Your task to perform on an android device: How do I get to the nearest AT&T Store? Image 0: 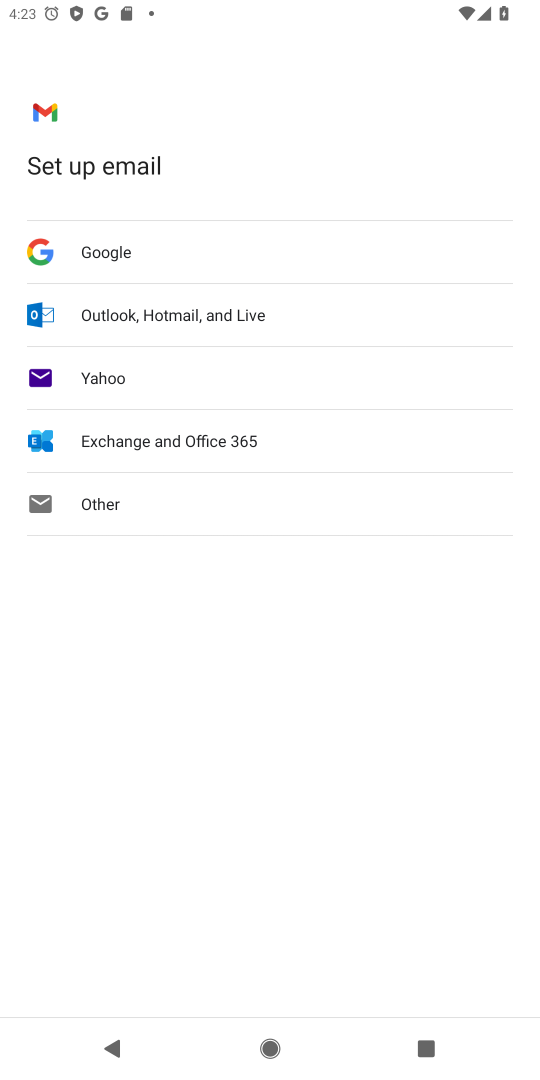
Step 0: press home button
Your task to perform on an android device: How do I get to the nearest AT&T Store? Image 1: 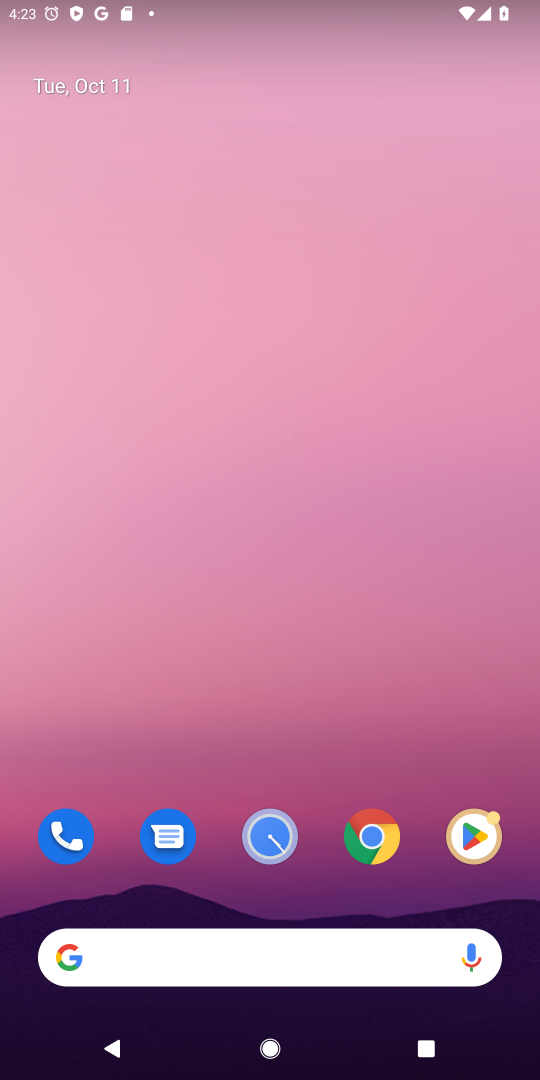
Step 1: click (229, 972)
Your task to perform on an android device: How do I get to the nearest AT&T Store? Image 2: 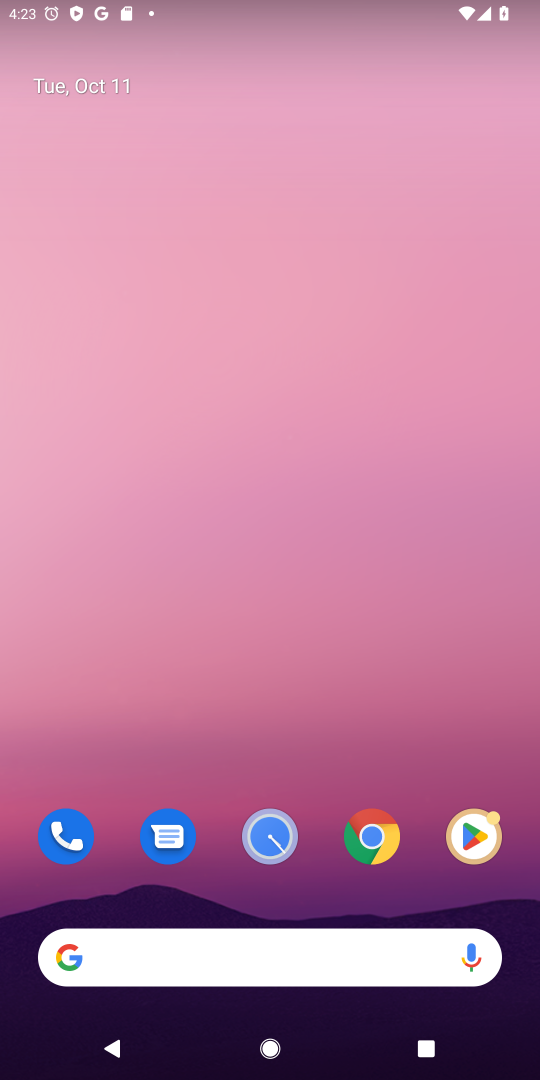
Step 2: type "How do I get to the nearest AT&T Store"
Your task to perform on an android device: How do I get to the nearest AT&T Store? Image 3: 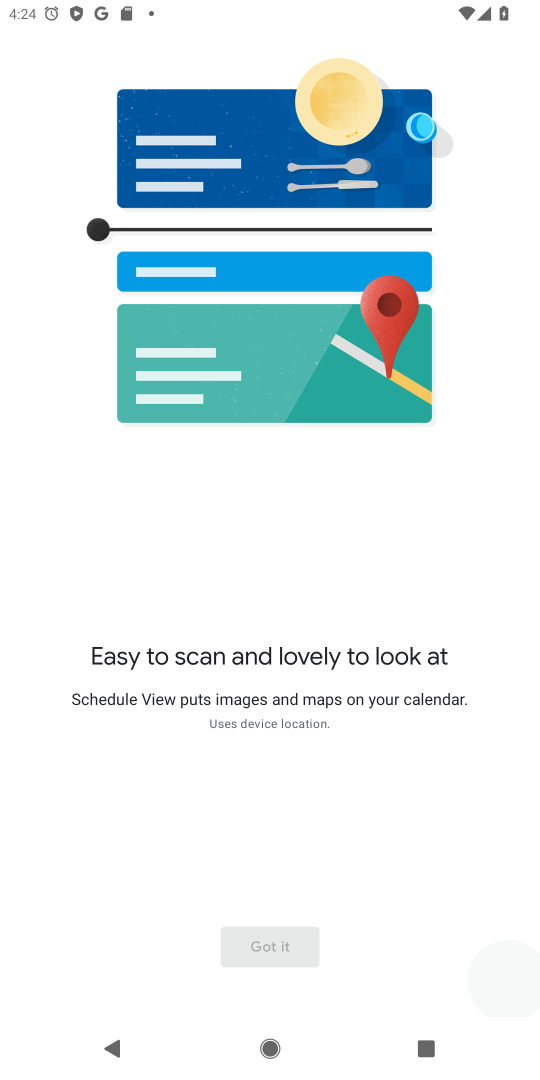
Step 3: press home button
Your task to perform on an android device: How do I get to the nearest AT&T Store? Image 4: 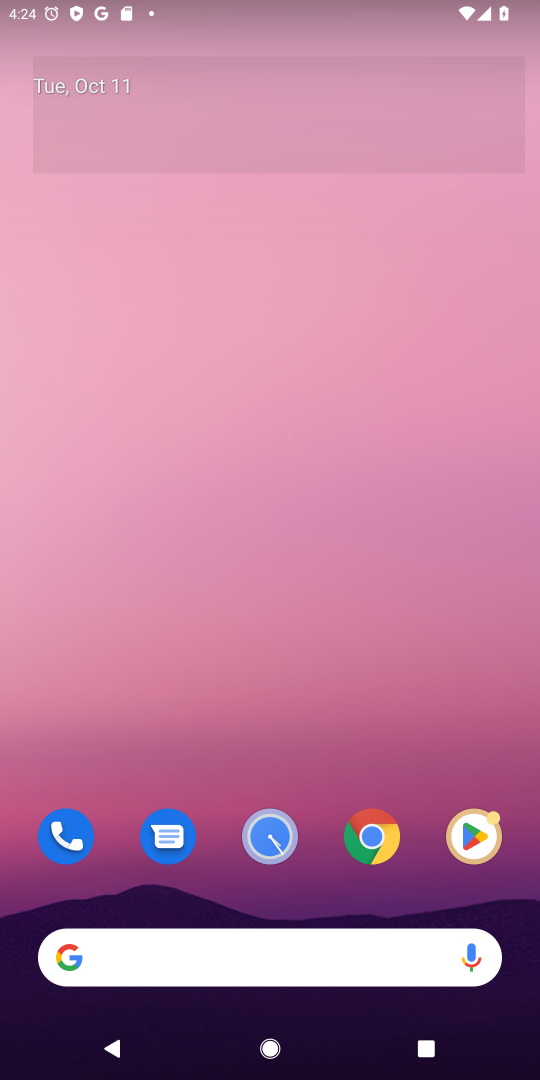
Step 4: click (245, 950)
Your task to perform on an android device: How do I get to the nearest AT&T Store? Image 5: 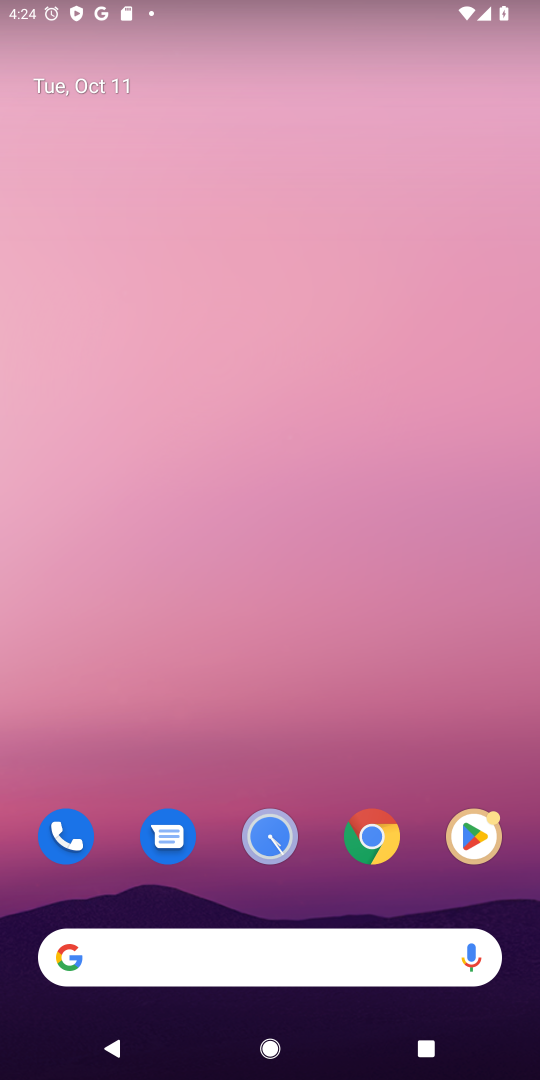
Step 5: click (259, 935)
Your task to perform on an android device: How do I get to the nearest AT&T Store? Image 6: 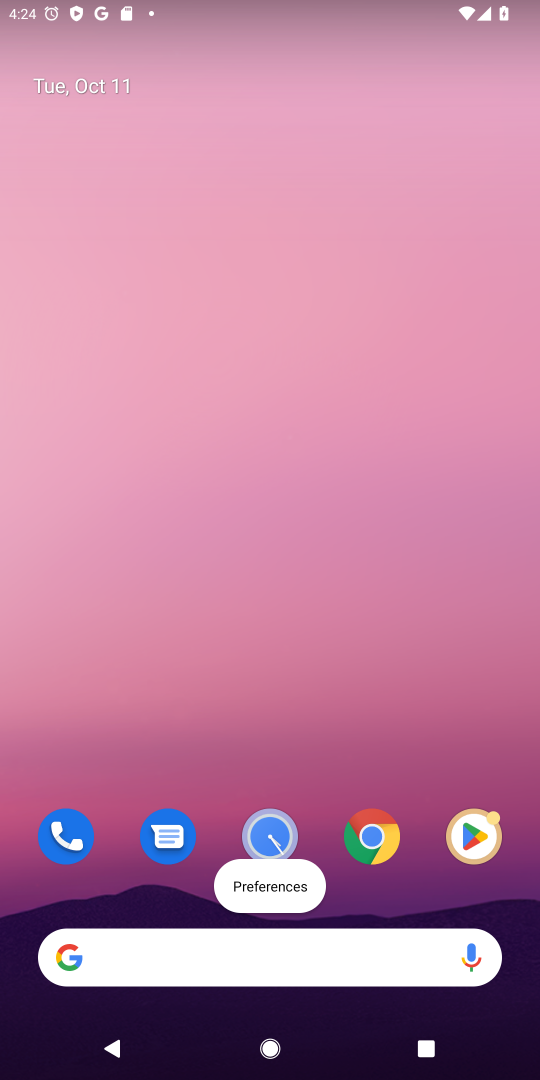
Step 6: click (252, 937)
Your task to perform on an android device: How do I get to the nearest AT&T Store? Image 7: 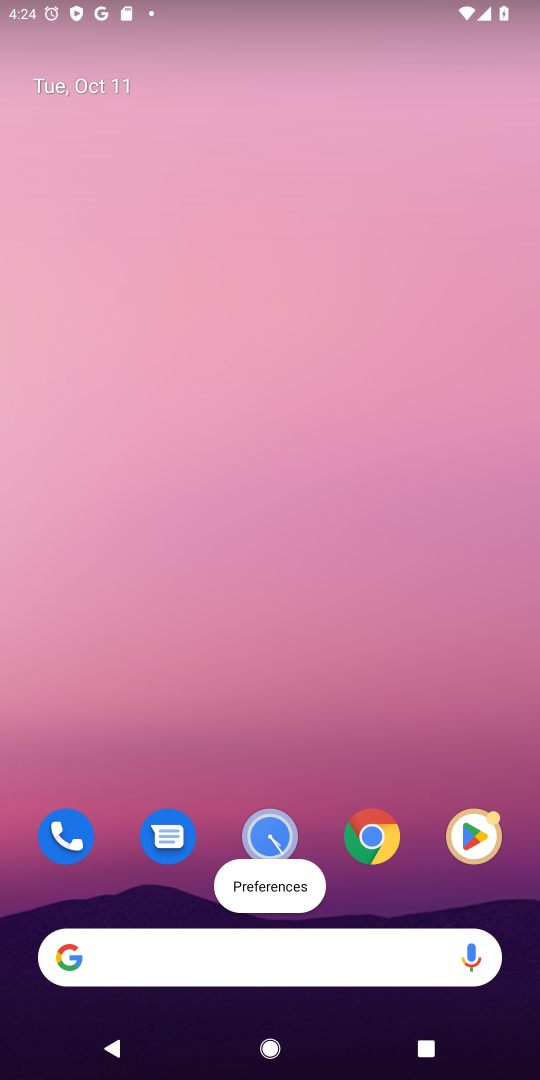
Step 7: click (252, 937)
Your task to perform on an android device: How do I get to the nearest AT&T Store? Image 8: 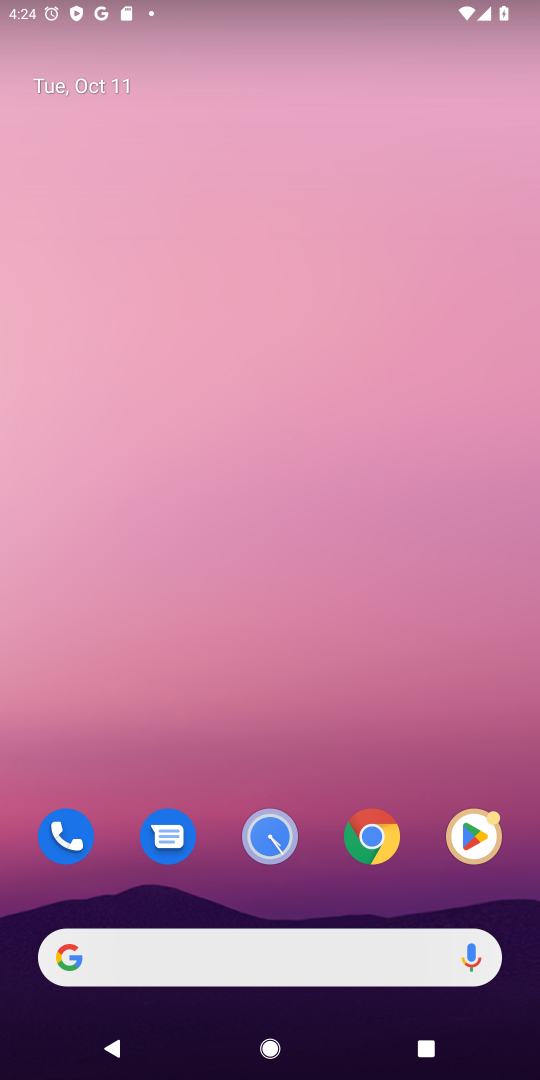
Step 8: click (252, 937)
Your task to perform on an android device: How do I get to the nearest AT&T Store? Image 9: 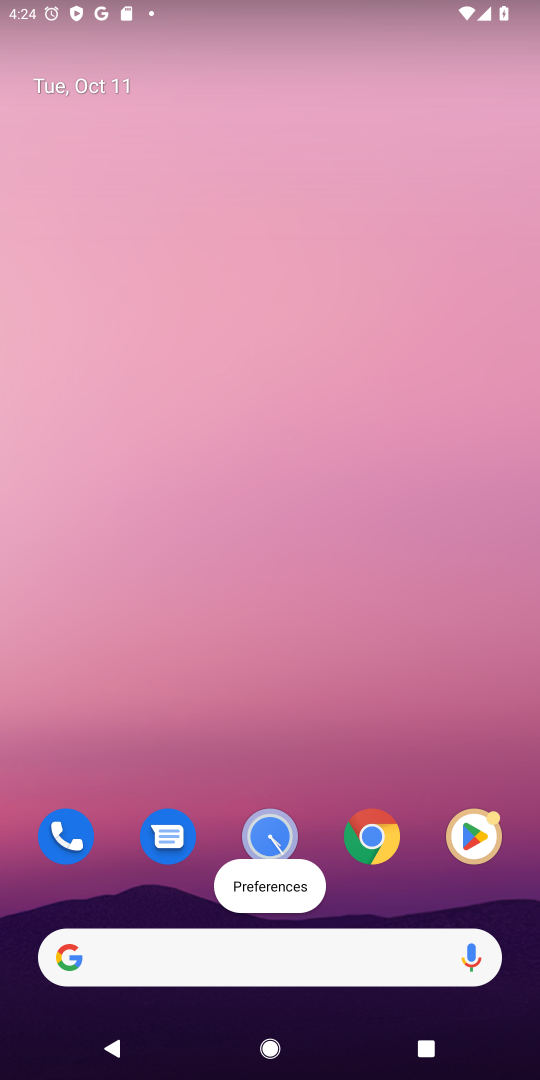
Step 9: click (204, 941)
Your task to perform on an android device: How do I get to the nearest AT&T Store? Image 10: 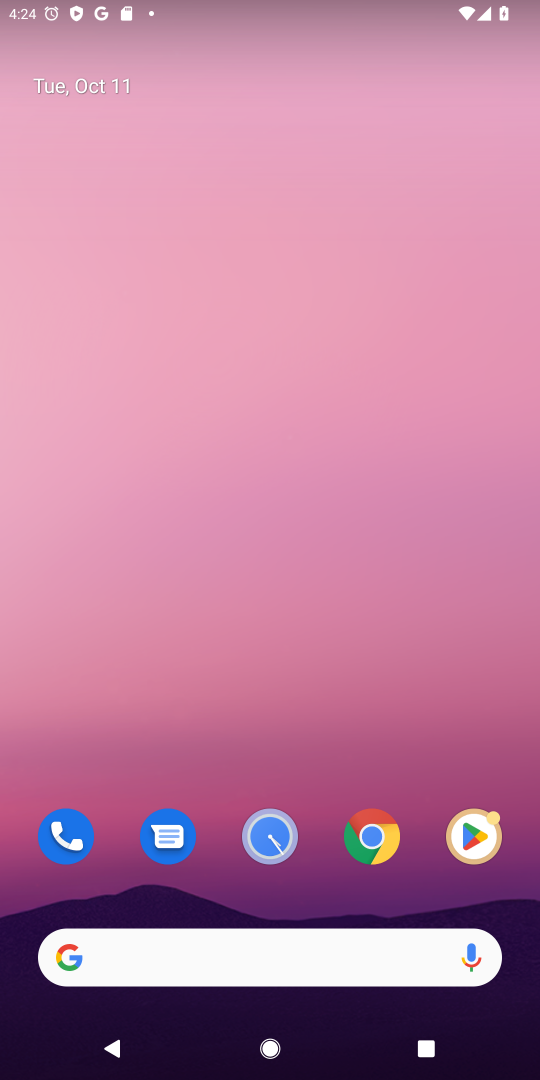
Step 10: click (140, 955)
Your task to perform on an android device: How do I get to the nearest AT&T Store? Image 11: 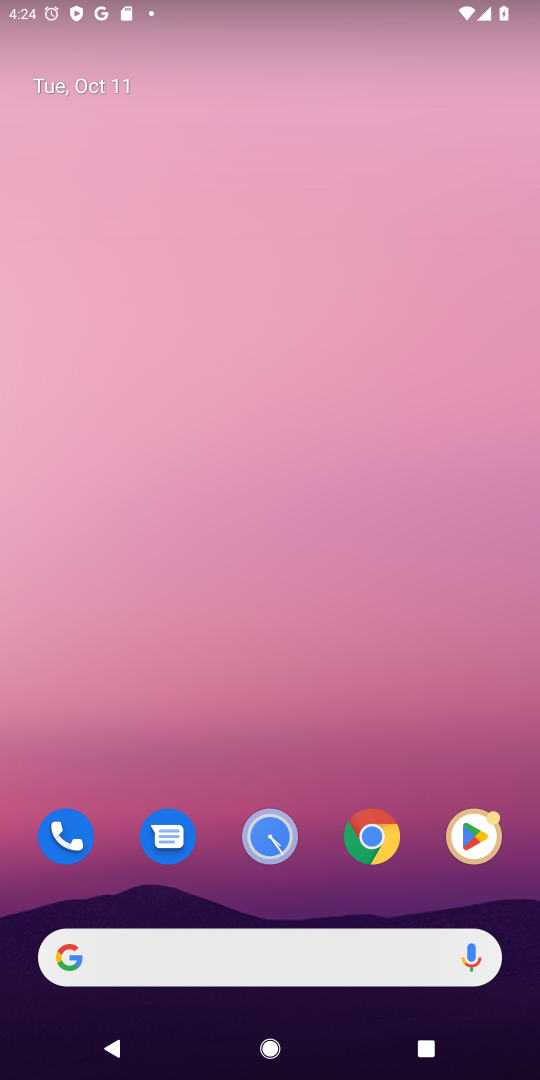
Step 11: click (140, 955)
Your task to perform on an android device: How do I get to the nearest AT&T Store? Image 12: 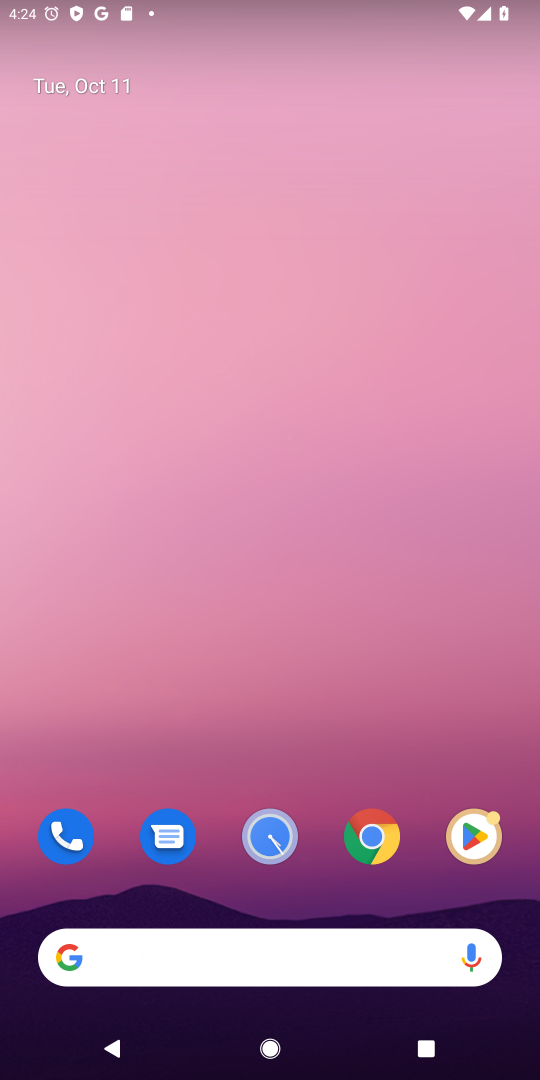
Step 12: click (140, 955)
Your task to perform on an android device: How do I get to the nearest AT&T Store? Image 13: 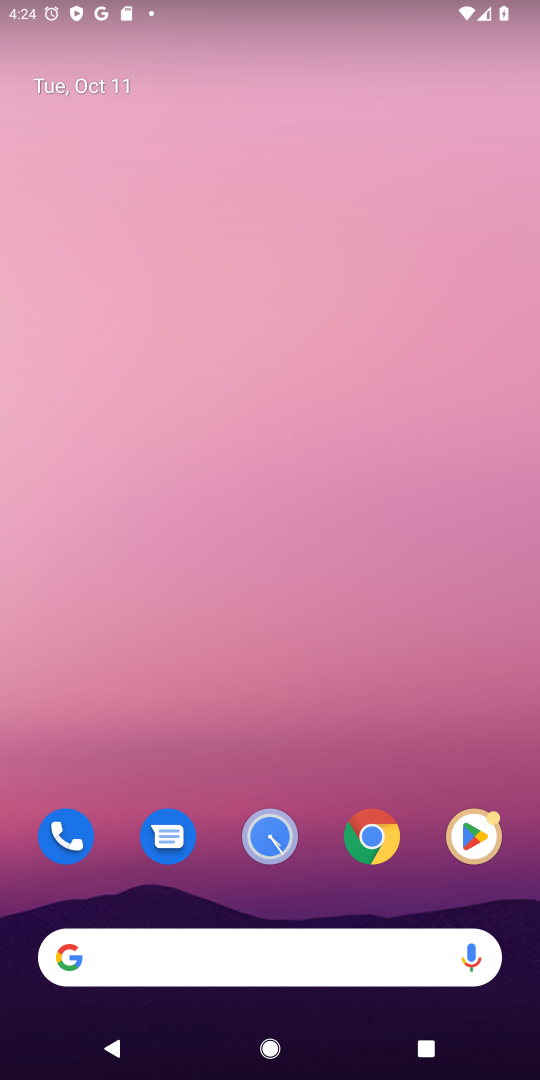
Step 13: click (201, 945)
Your task to perform on an android device: How do I get to the nearest AT&T Store? Image 14: 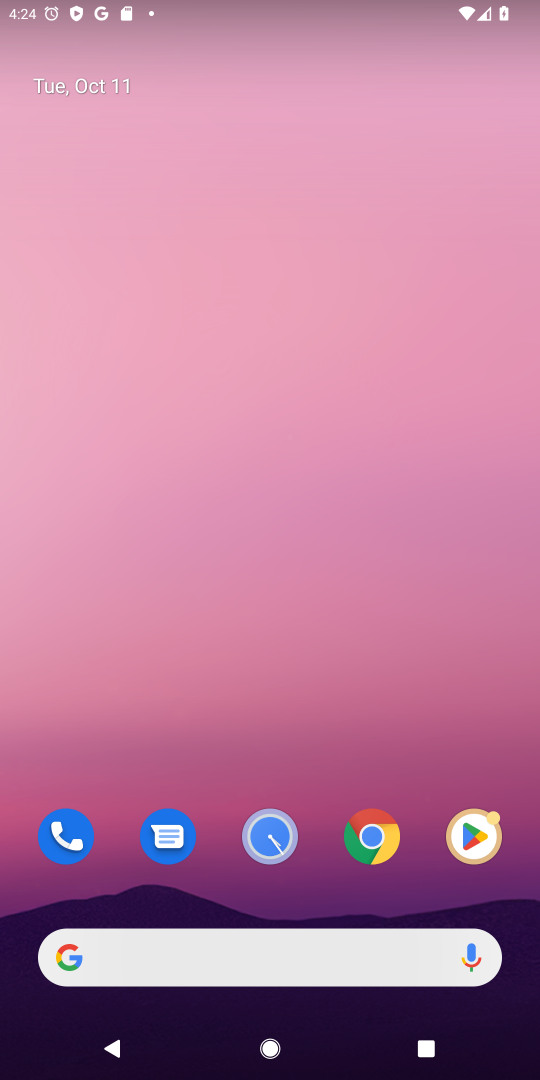
Step 14: click (201, 945)
Your task to perform on an android device: How do I get to the nearest AT&T Store? Image 15: 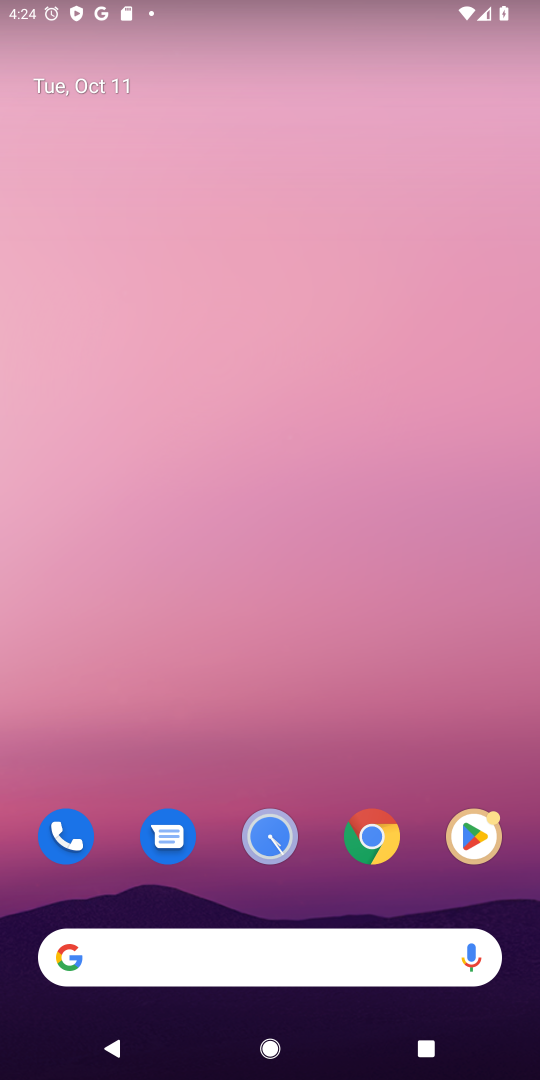
Step 15: click (360, 833)
Your task to perform on an android device: How do I get to the nearest AT&T Store? Image 16: 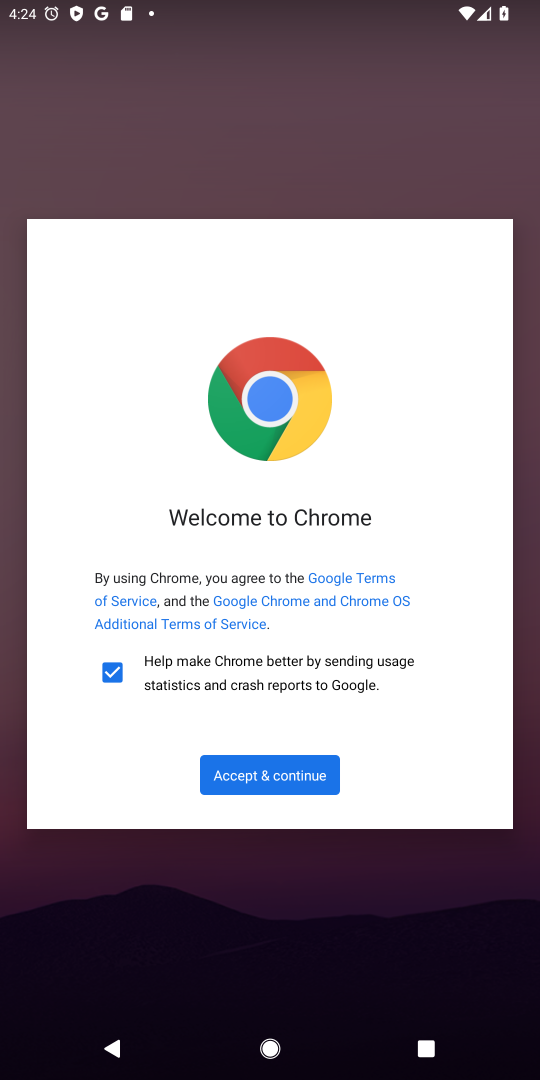
Step 16: click (292, 759)
Your task to perform on an android device: How do I get to the nearest AT&T Store? Image 17: 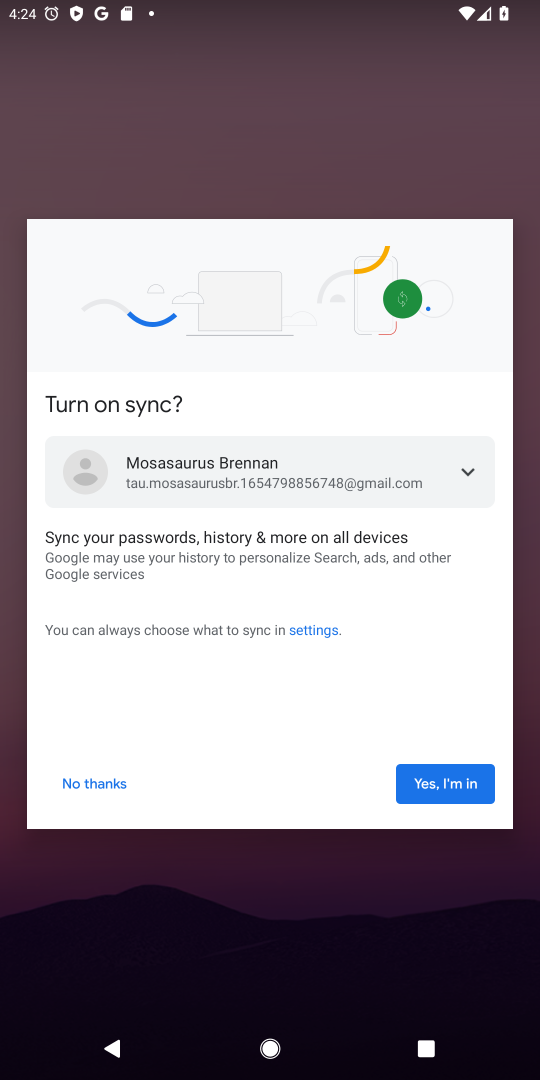
Step 17: click (463, 780)
Your task to perform on an android device: How do I get to the nearest AT&T Store? Image 18: 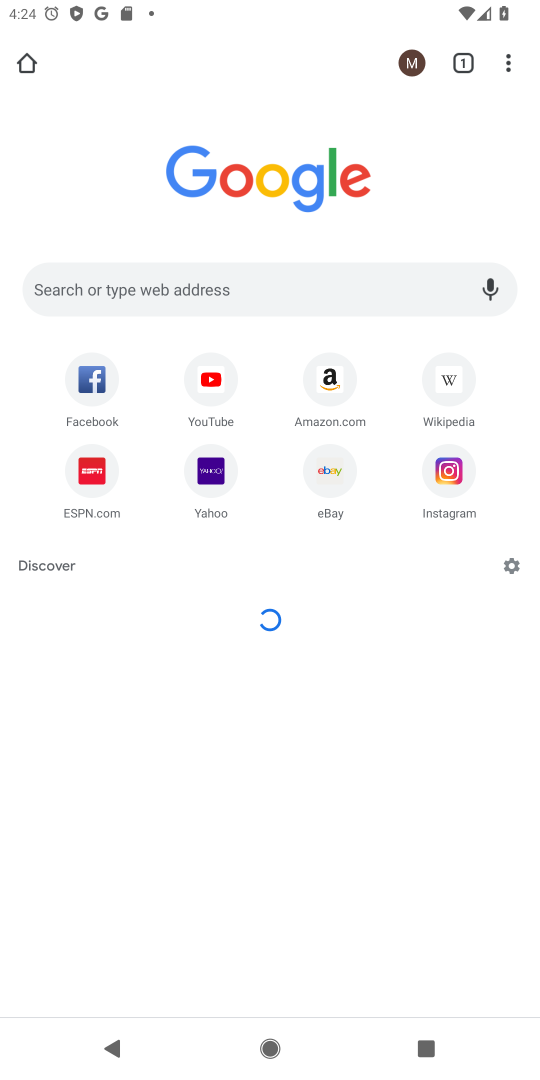
Step 18: click (269, 267)
Your task to perform on an android device: How do I get to the nearest AT&T Store? Image 19: 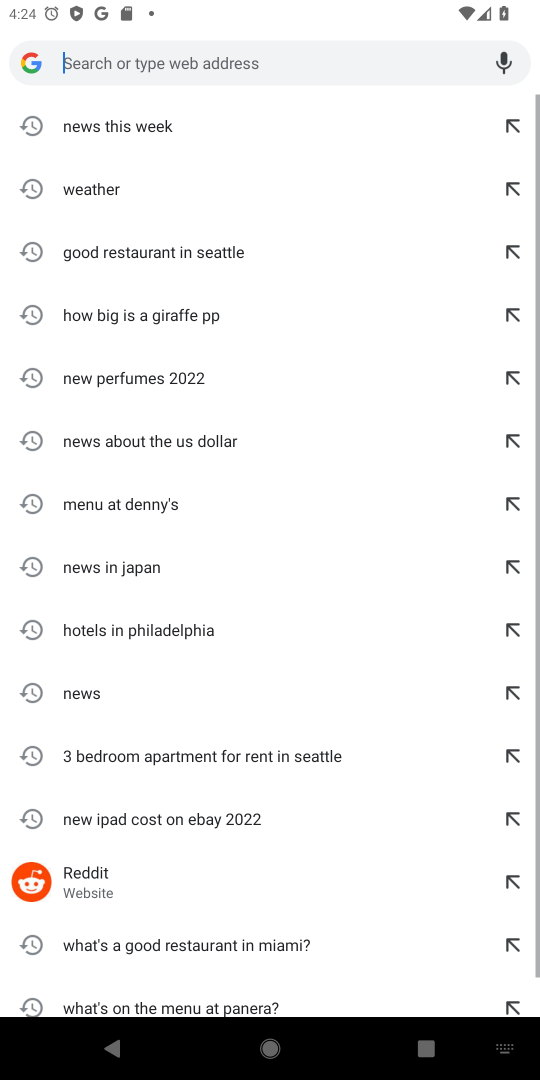
Step 19: type "How do I get to the nearest AT&T Store"
Your task to perform on an android device: How do I get to the nearest AT&T Store? Image 20: 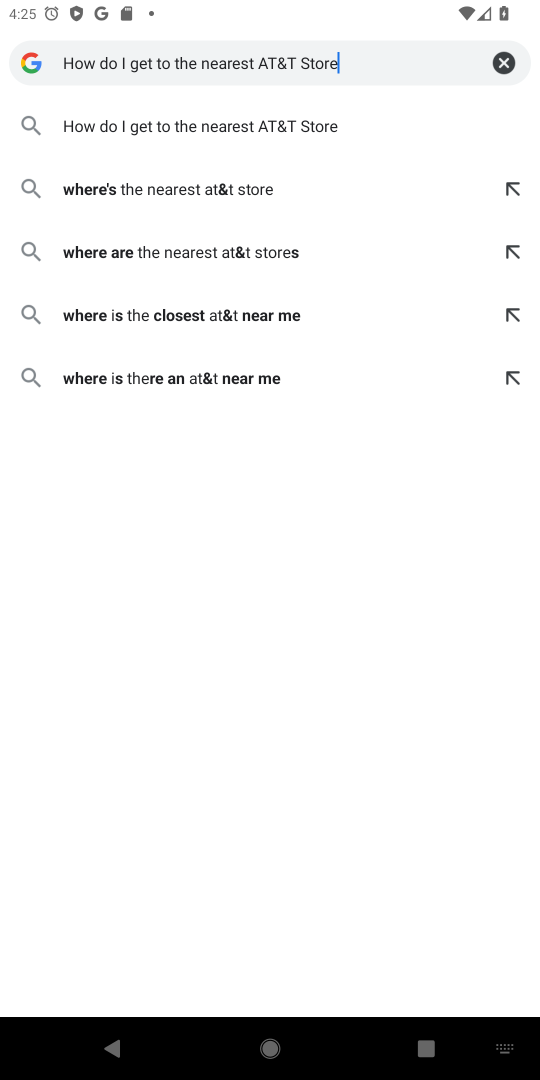
Step 20: click (267, 124)
Your task to perform on an android device: How do I get to the nearest AT&T Store? Image 21: 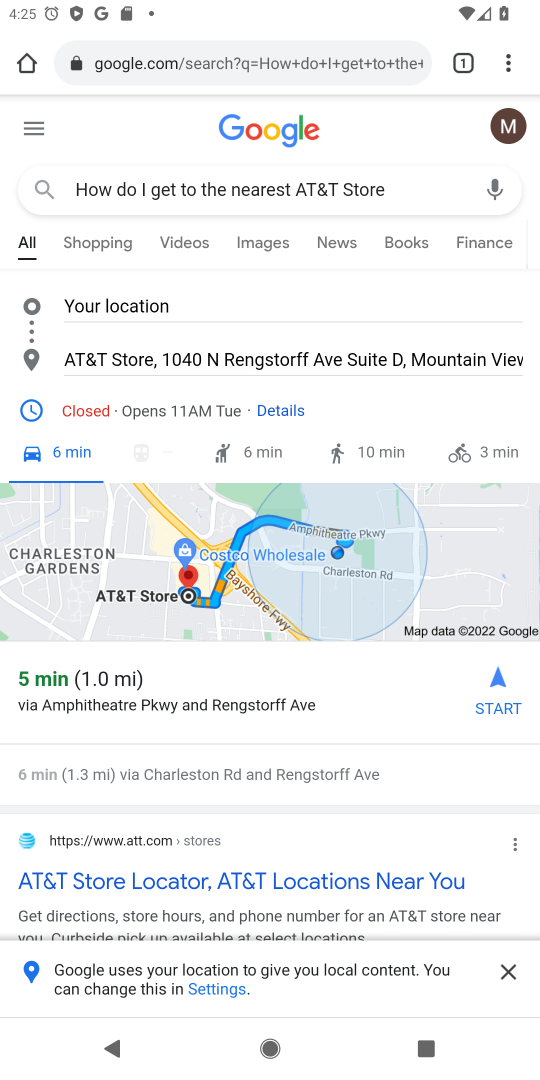
Step 21: task complete